Your task to perform on an android device: empty trash in google photos Image 0: 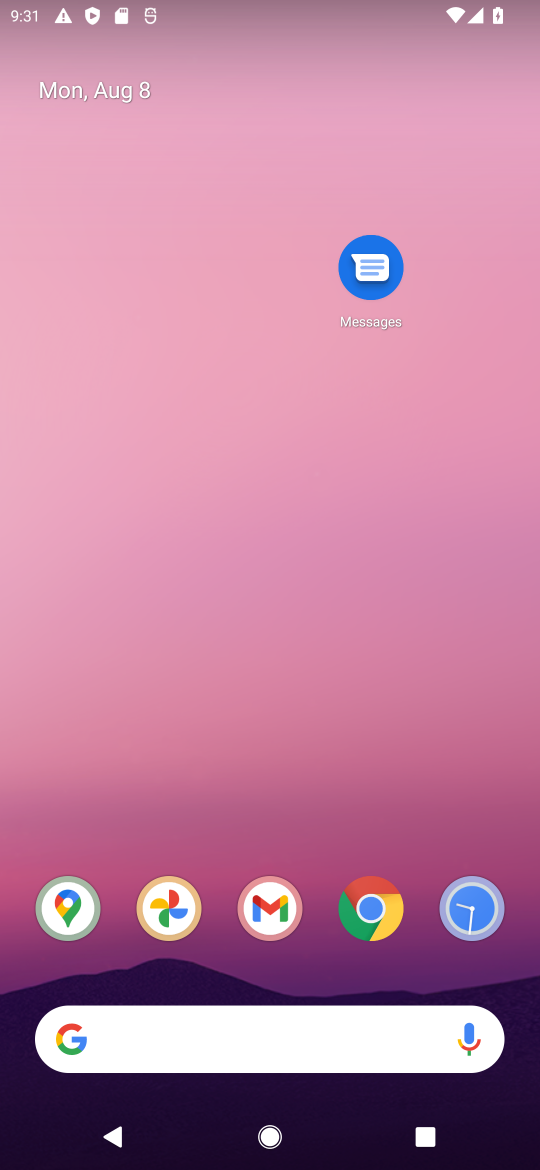
Step 0: click (173, 919)
Your task to perform on an android device: empty trash in google photos Image 1: 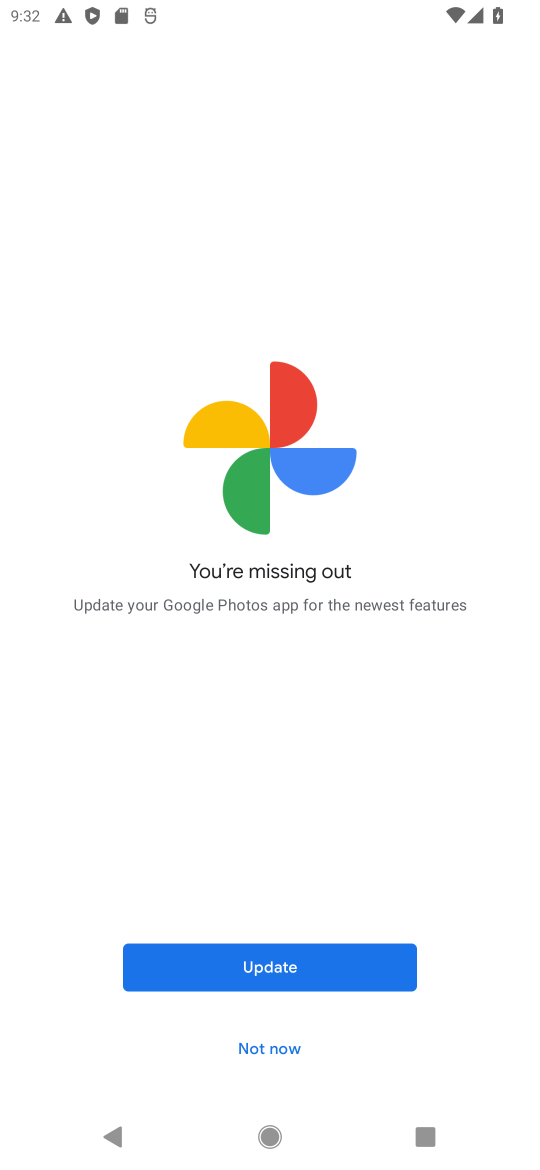
Step 1: click (243, 1044)
Your task to perform on an android device: empty trash in google photos Image 2: 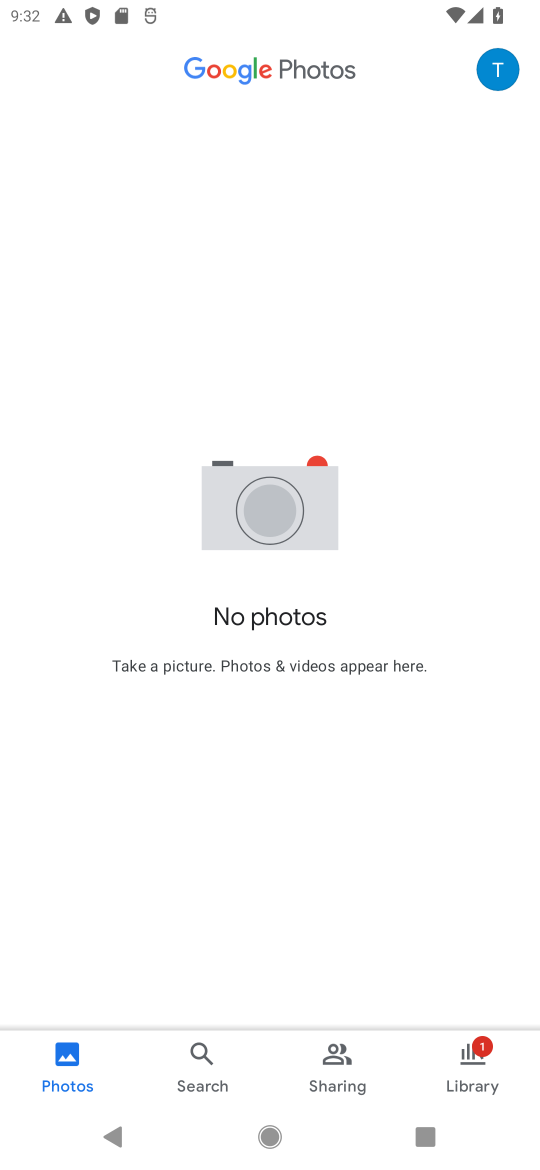
Step 2: click (444, 1062)
Your task to perform on an android device: empty trash in google photos Image 3: 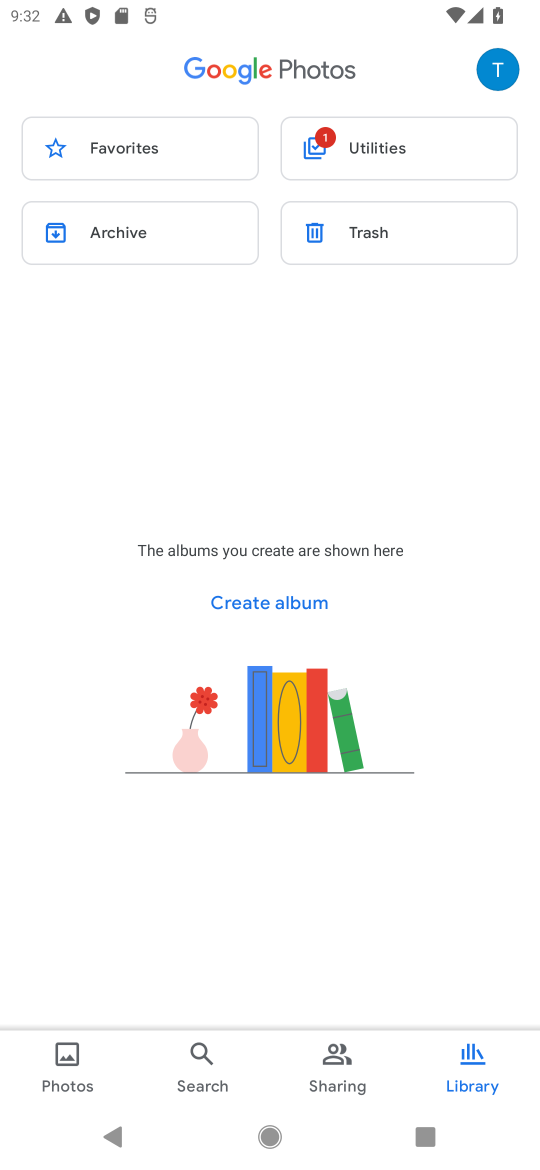
Step 3: click (360, 232)
Your task to perform on an android device: empty trash in google photos Image 4: 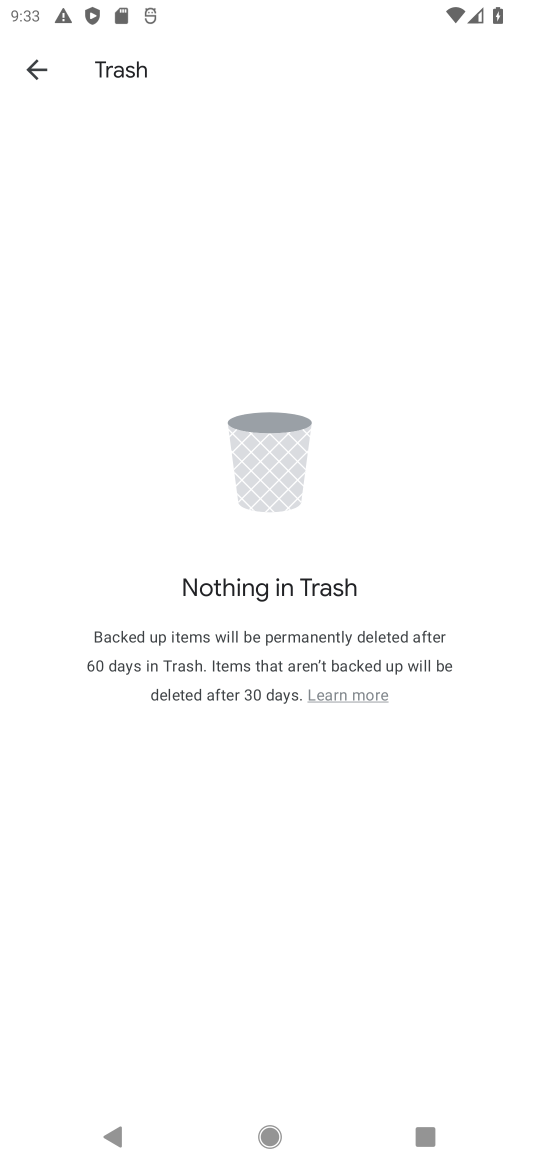
Step 4: task complete